Your task to perform on an android device: Set an alarm for 3pm Image 0: 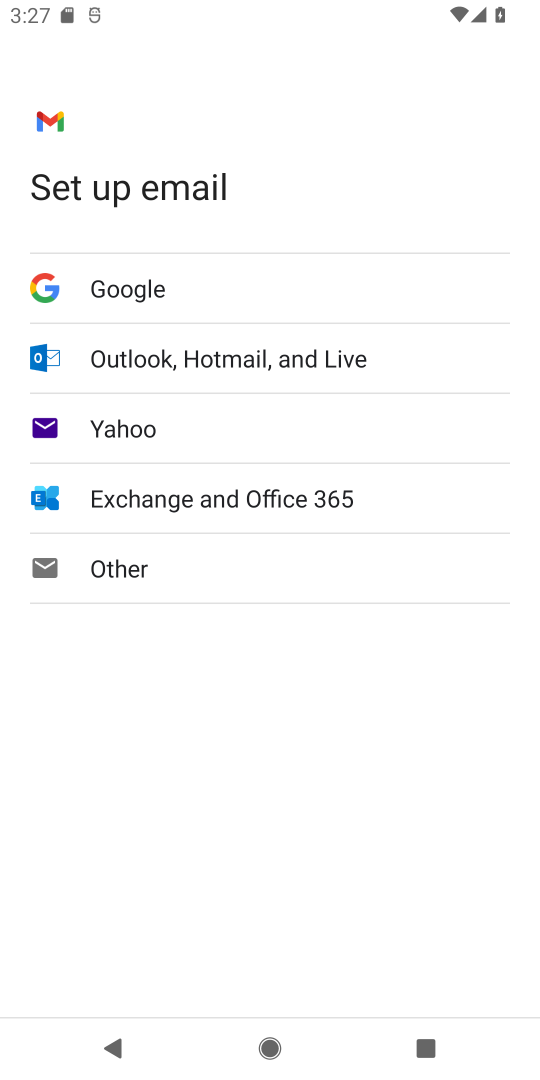
Step 0: press home button
Your task to perform on an android device: Set an alarm for 3pm Image 1: 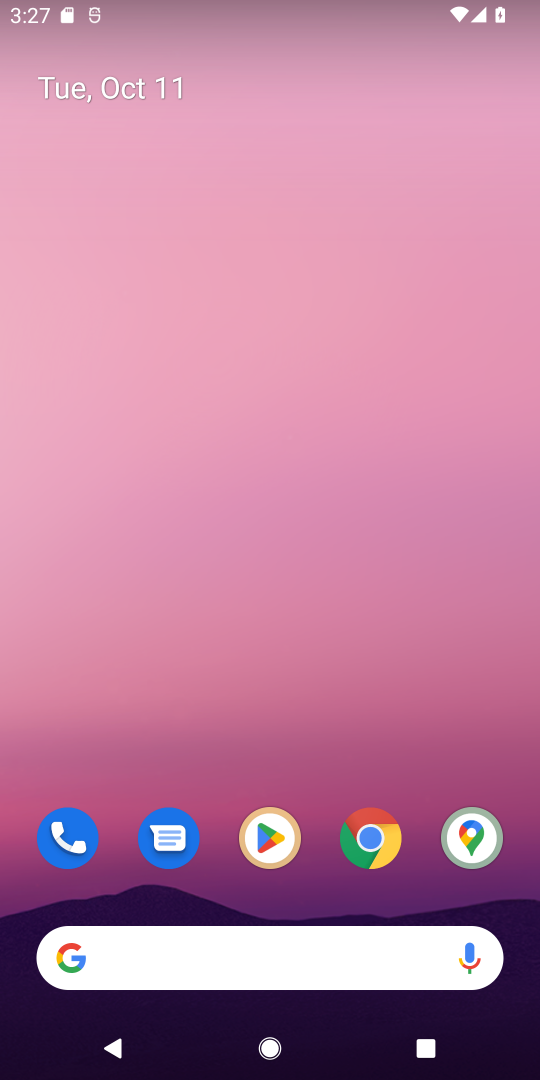
Step 1: drag from (218, 742) to (325, 296)
Your task to perform on an android device: Set an alarm for 3pm Image 2: 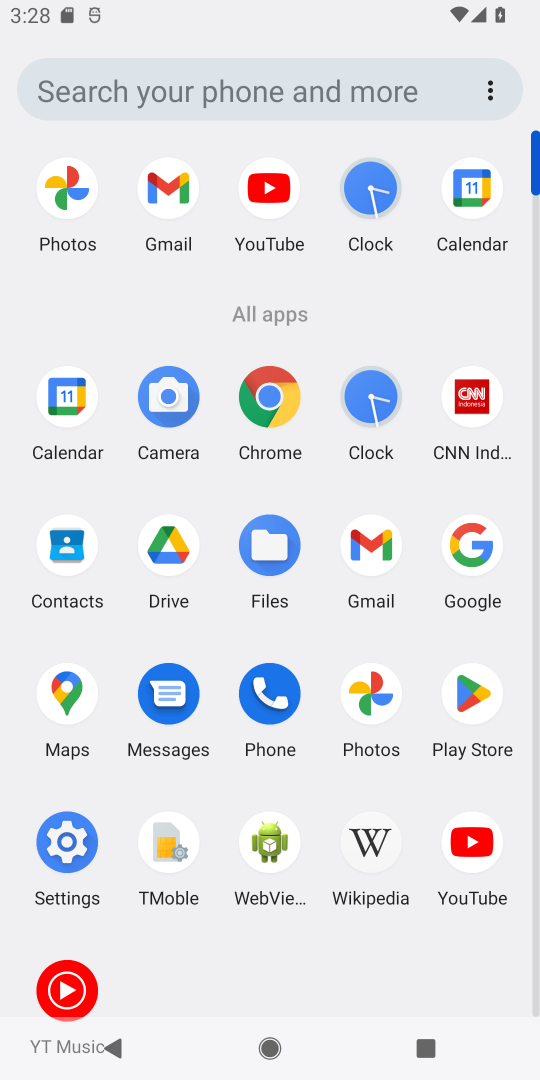
Step 2: click (396, 207)
Your task to perform on an android device: Set an alarm for 3pm Image 3: 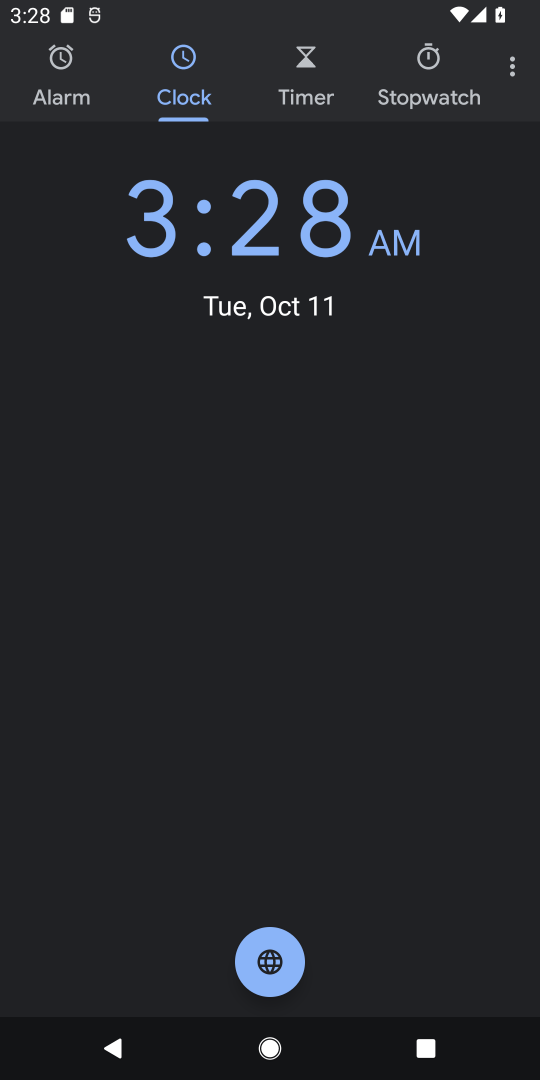
Step 3: click (85, 83)
Your task to perform on an android device: Set an alarm for 3pm Image 4: 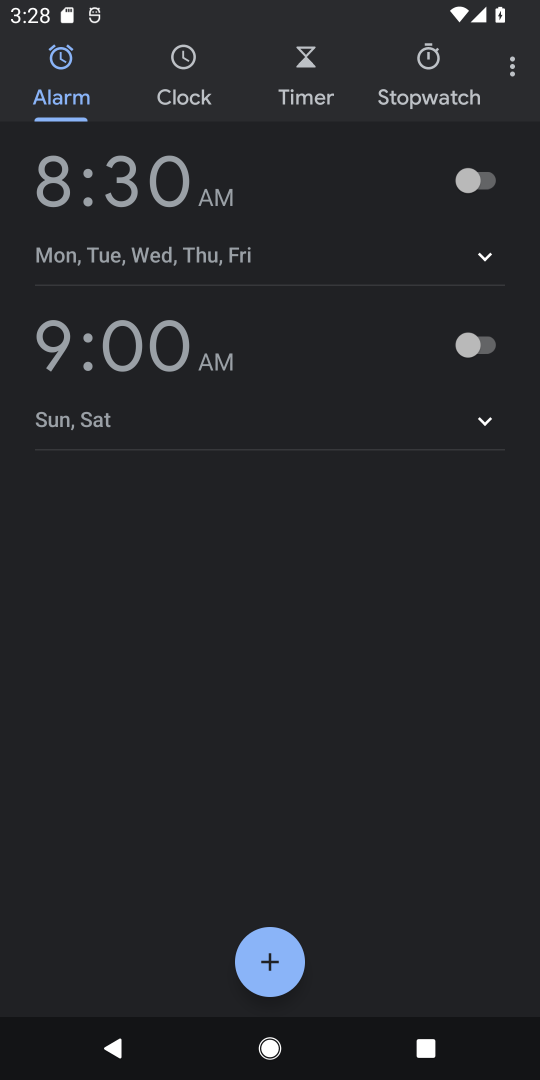
Step 4: click (486, 186)
Your task to perform on an android device: Set an alarm for 3pm Image 5: 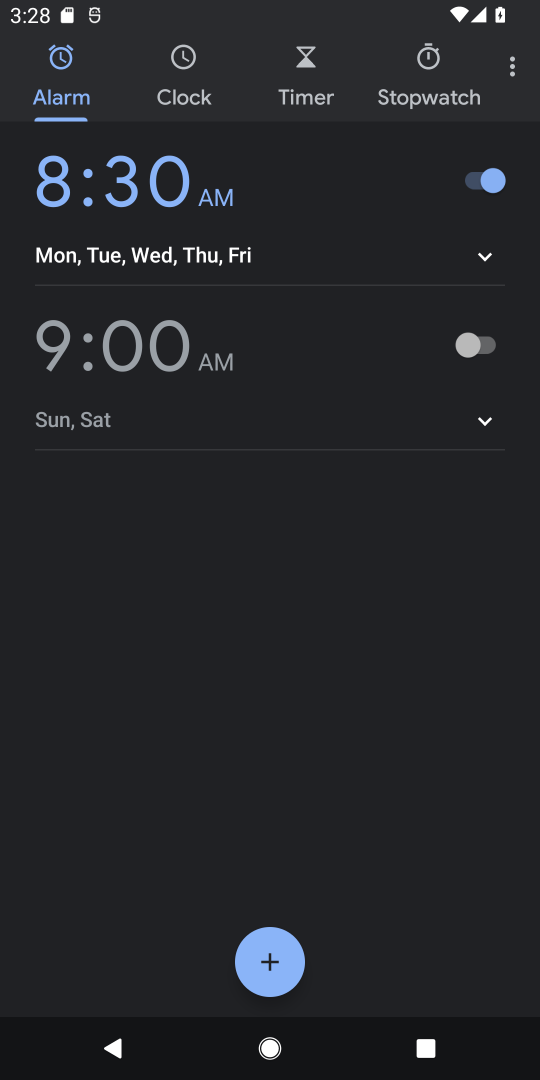
Step 5: click (181, 183)
Your task to perform on an android device: Set an alarm for 3pm Image 6: 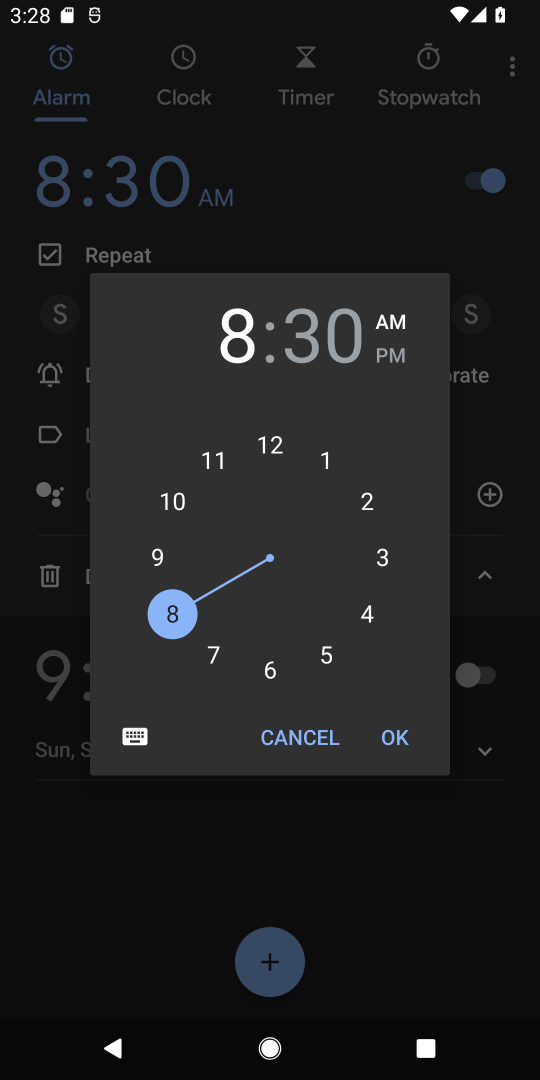
Step 6: click (392, 549)
Your task to perform on an android device: Set an alarm for 3pm Image 7: 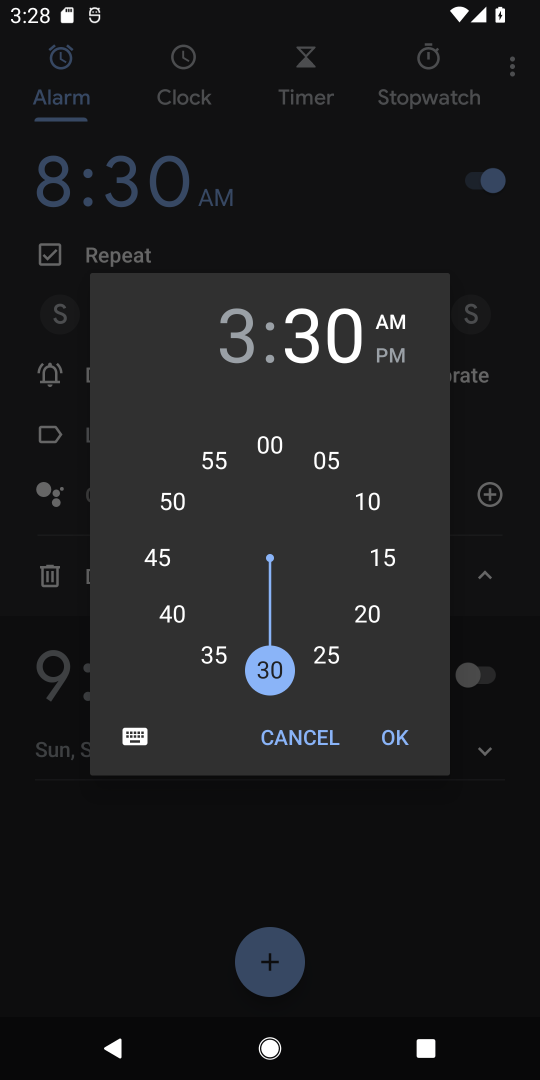
Step 7: click (289, 444)
Your task to perform on an android device: Set an alarm for 3pm Image 8: 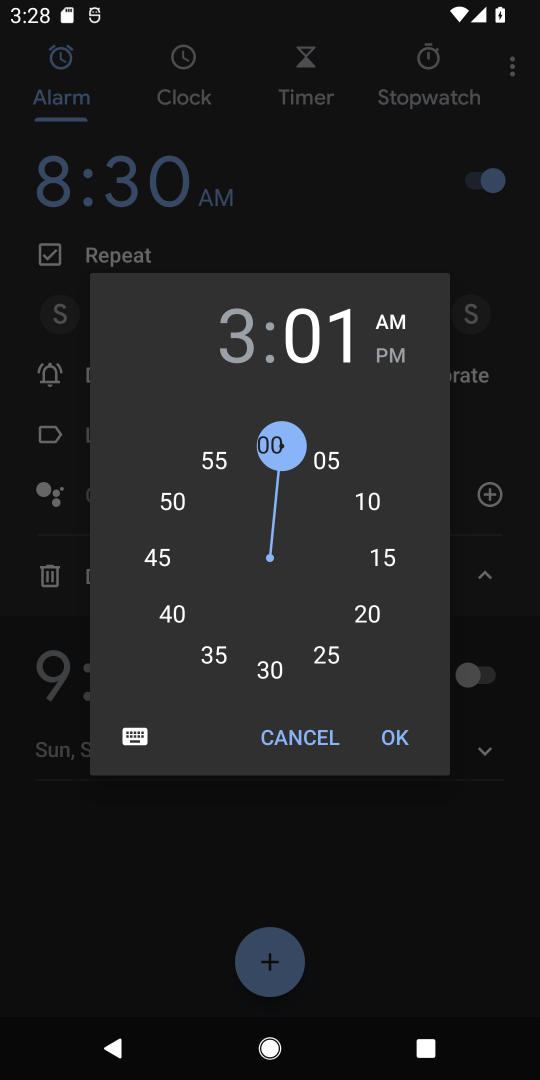
Step 8: click (400, 364)
Your task to perform on an android device: Set an alarm for 3pm Image 9: 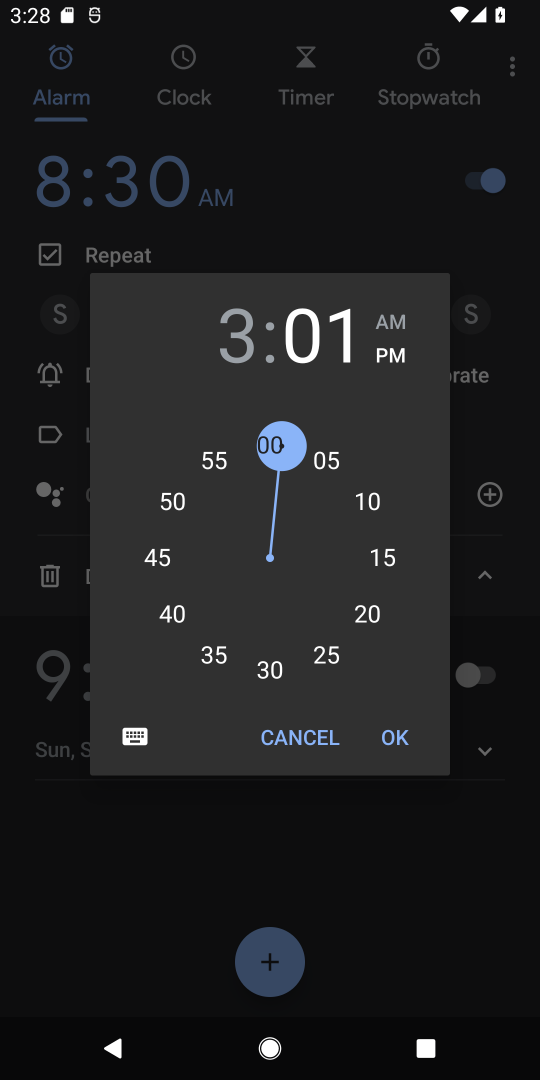
Step 9: click (270, 442)
Your task to perform on an android device: Set an alarm for 3pm Image 10: 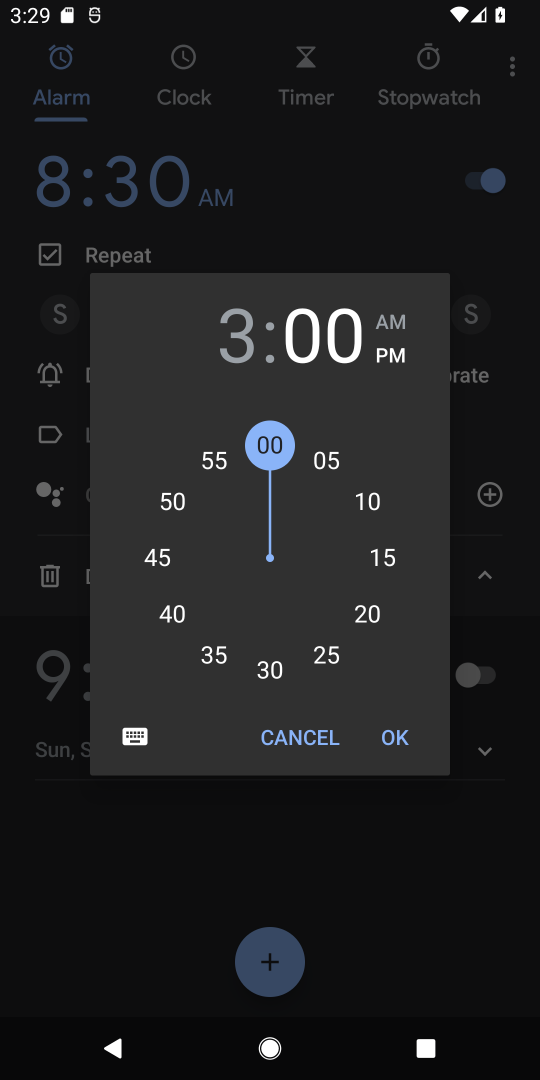
Step 10: task complete